Your task to perform on an android device: change alarm snooze length Image 0: 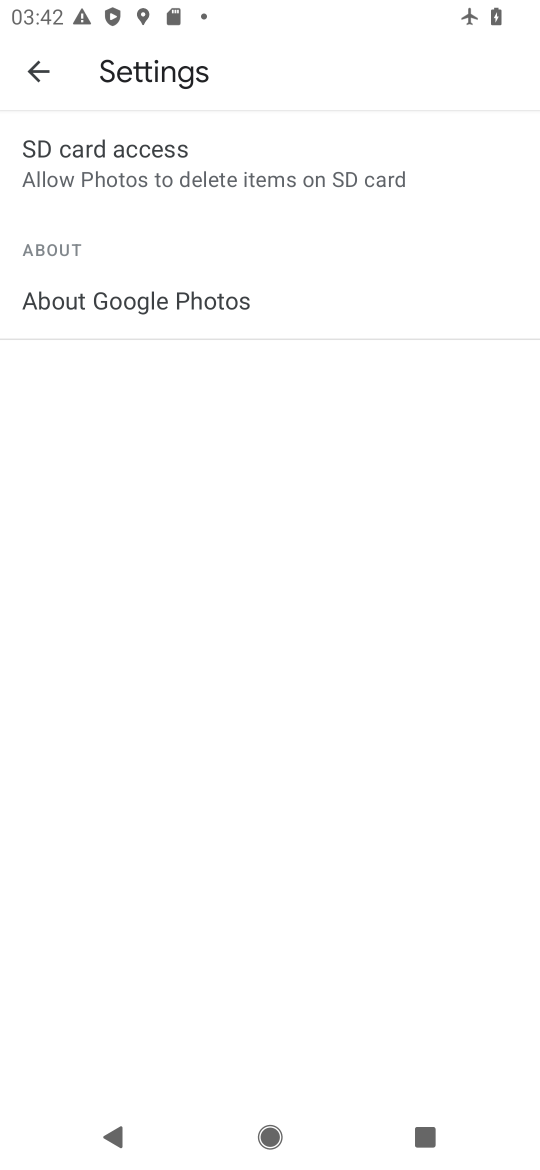
Step 0: press home button
Your task to perform on an android device: change alarm snooze length Image 1: 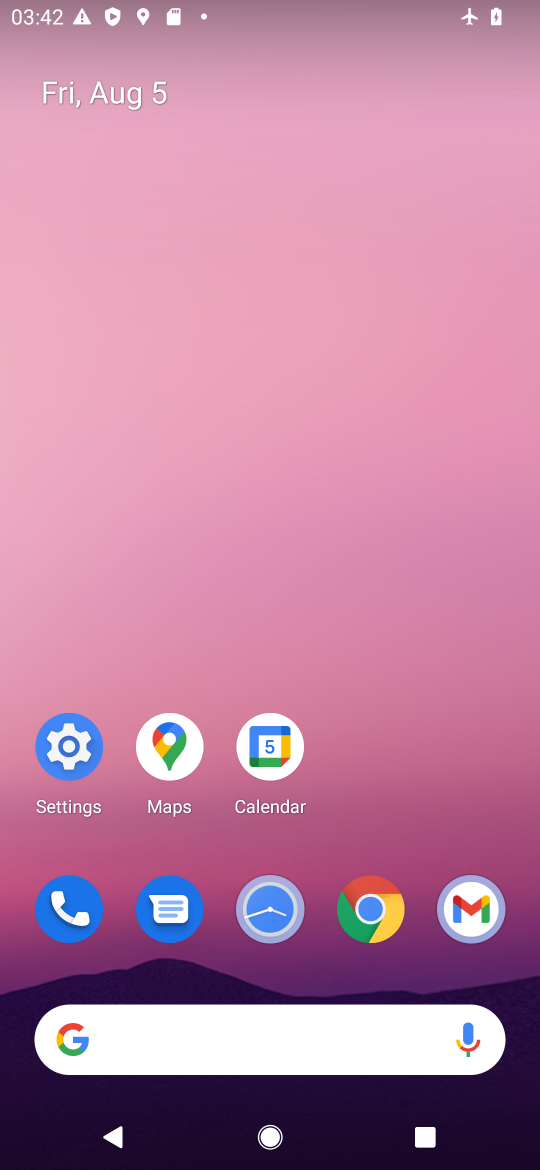
Step 1: click (269, 907)
Your task to perform on an android device: change alarm snooze length Image 2: 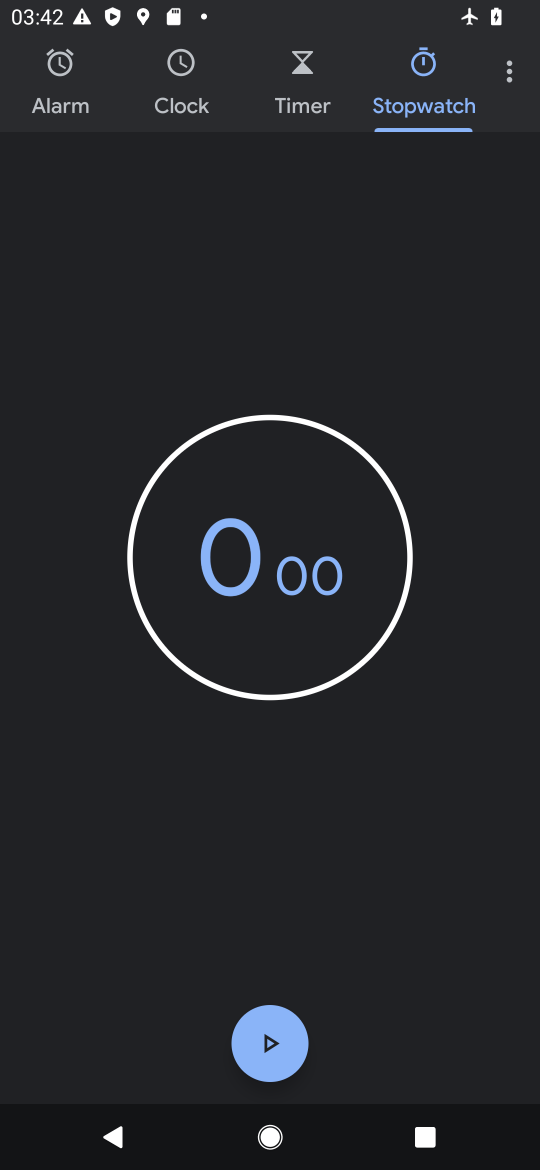
Step 2: click (512, 65)
Your task to perform on an android device: change alarm snooze length Image 3: 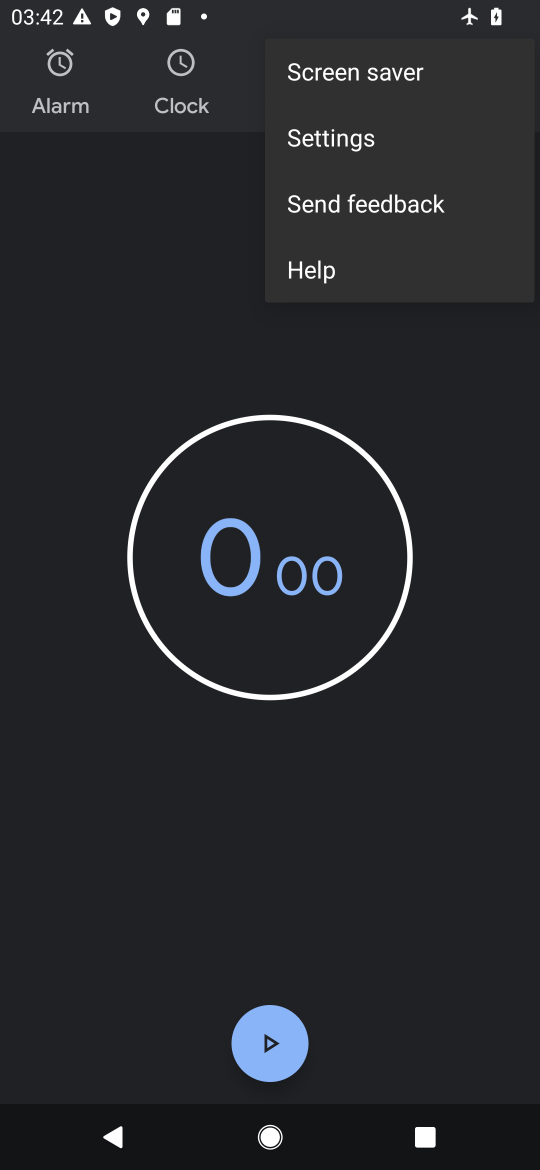
Step 3: click (337, 135)
Your task to perform on an android device: change alarm snooze length Image 4: 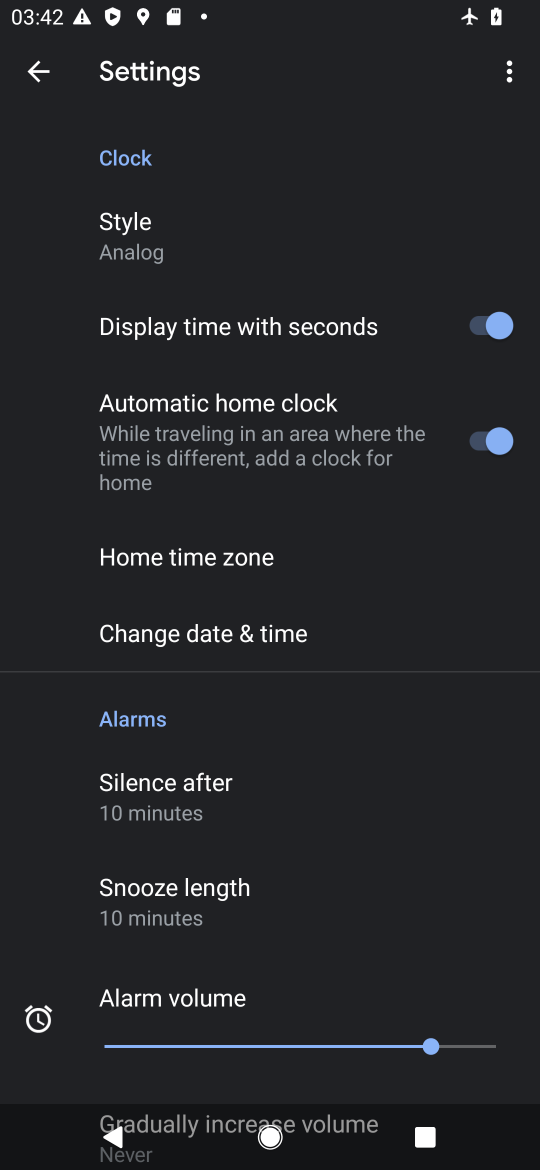
Step 4: click (230, 895)
Your task to perform on an android device: change alarm snooze length Image 5: 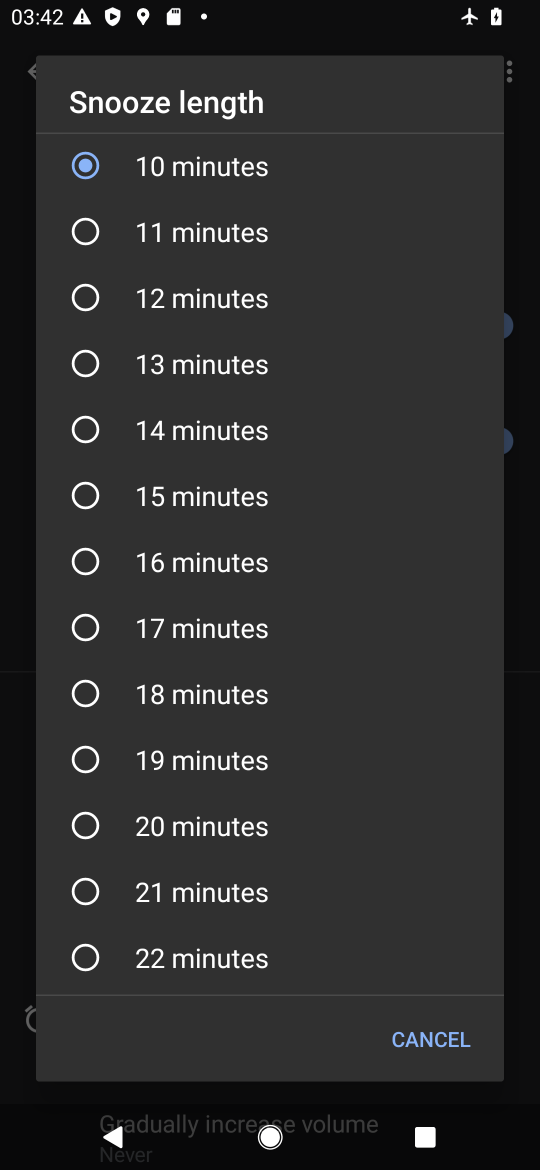
Step 5: click (88, 432)
Your task to perform on an android device: change alarm snooze length Image 6: 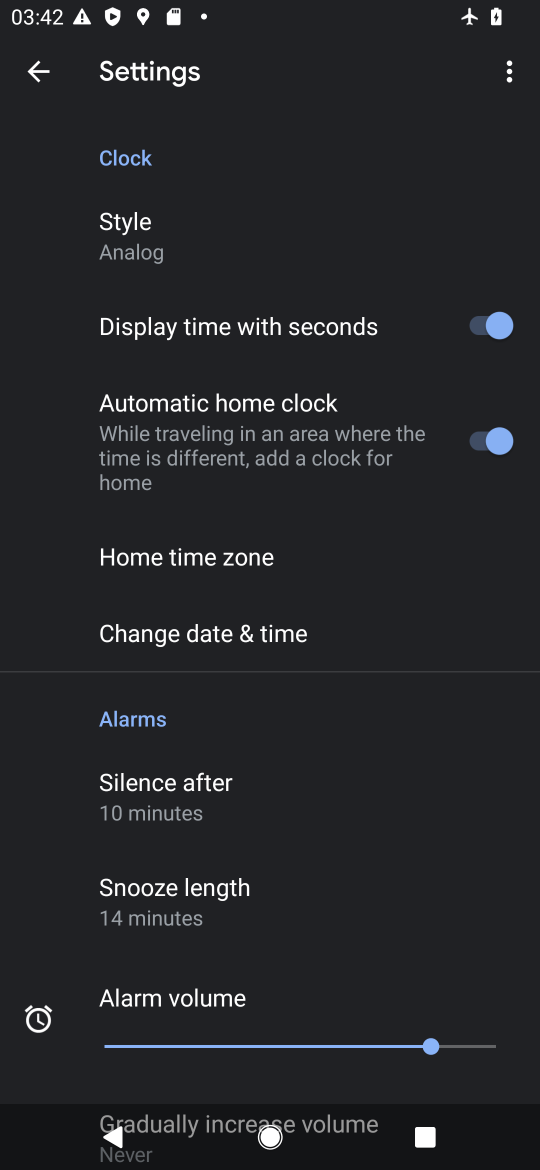
Step 6: task complete